Your task to perform on an android device: turn on priority inbox in the gmail app Image 0: 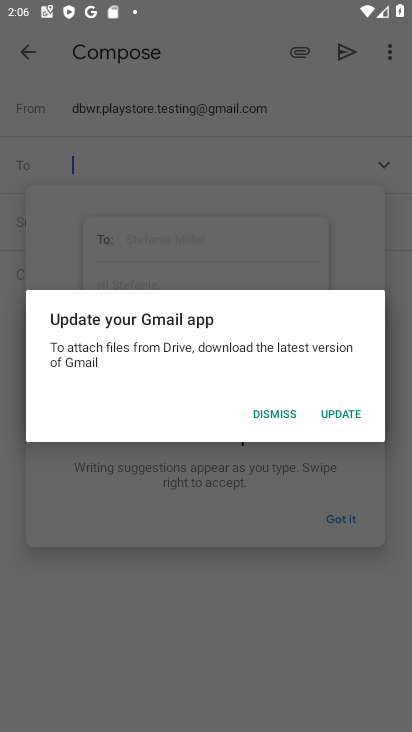
Step 0: press home button
Your task to perform on an android device: turn on priority inbox in the gmail app Image 1: 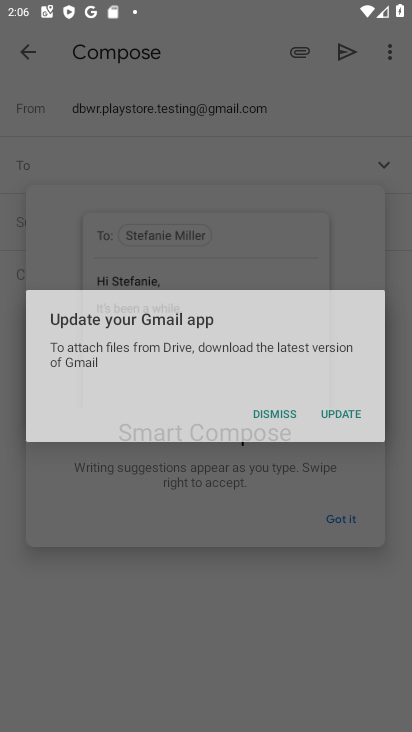
Step 1: press home button
Your task to perform on an android device: turn on priority inbox in the gmail app Image 2: 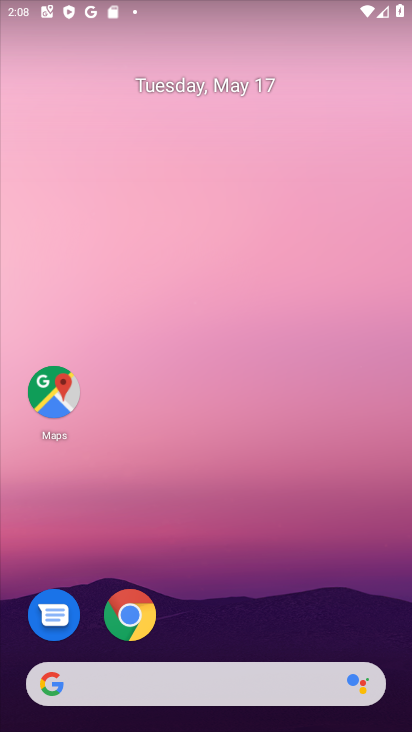
Step 2: drag from (348, 627) to (343, 190)
Your task to perform on an android device: turn on priority inbox in the gmail app Image 3: 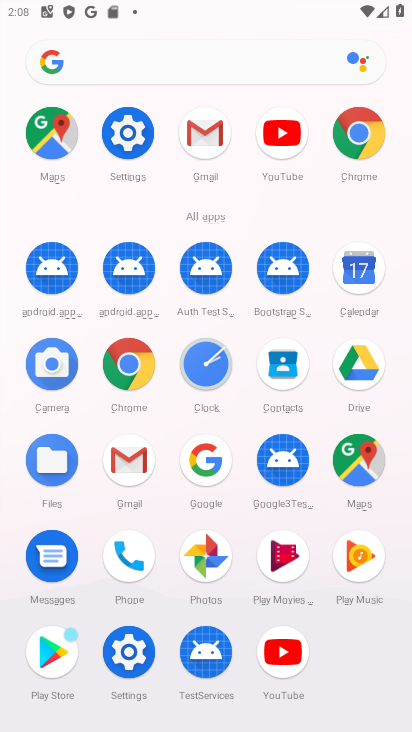
Step 3: click (115, 427)
Your task to perform on an android device: turn on priority inbox in the gmail app Image 4: 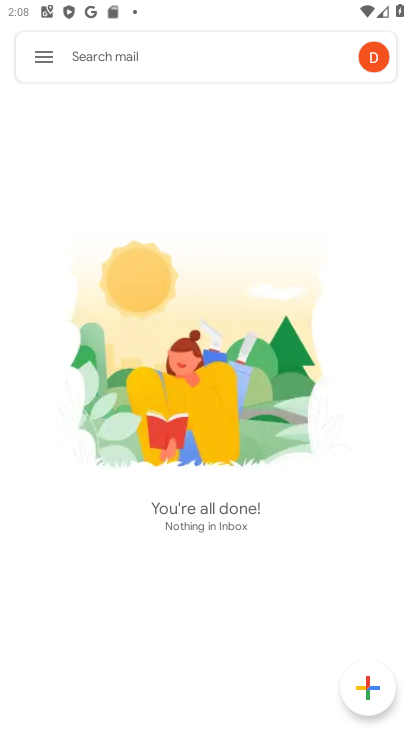
Step 4: click (44, 58)
Your task to perform on an android device: turn on priority inbox in the gmail app Image 5: 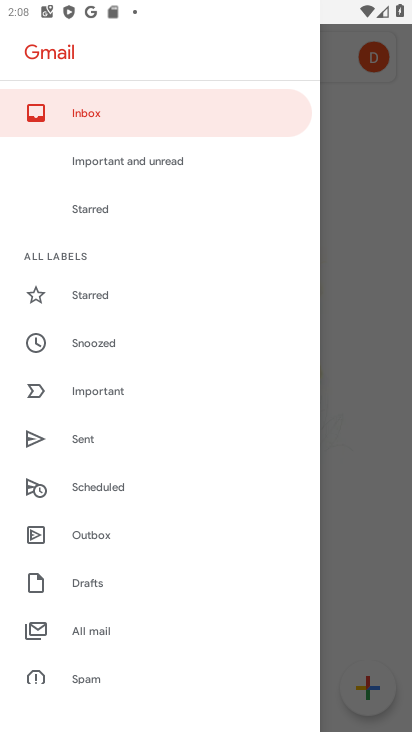
Step 5: drag from (87, 570) to (113, 45)
Your task to perform on an android device: turn on priority inbox in the gmail app Image 6: 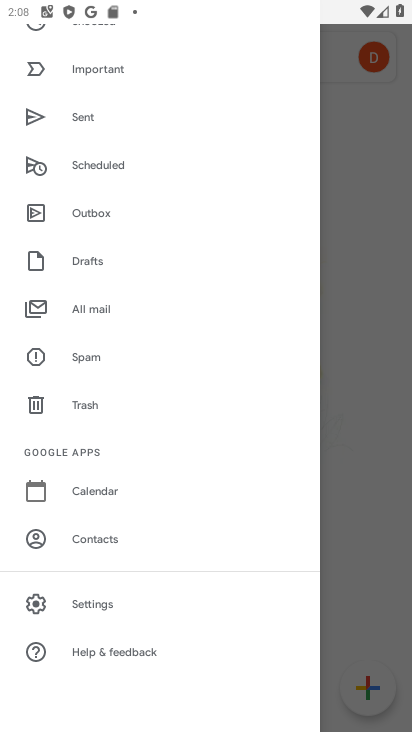
Step 6: click (92, 601)
Your task to perform on an android device: turn on priority inbox in the gmail app Image 7: 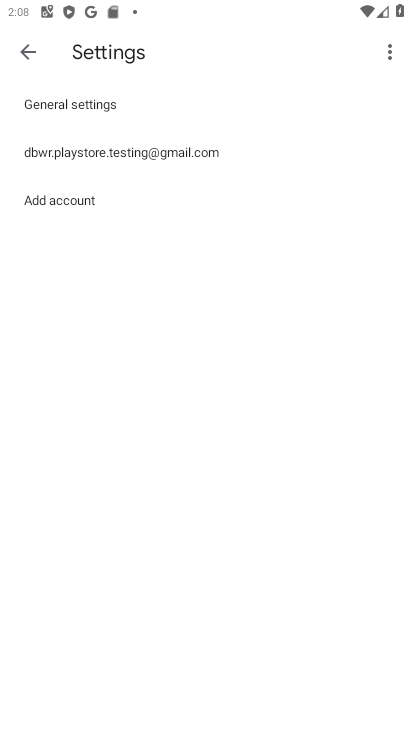
Step 7: click (150, 151)
Your task to perform on an android device: turn on priority inbox in the gmail app Image 8: 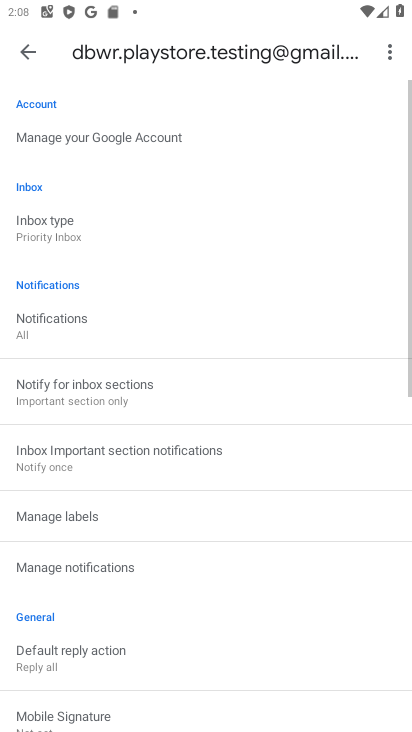
Step 8: click (89, 224)
Your task to perform on an android device: turn on priority inbox in the gmail app Image 9: 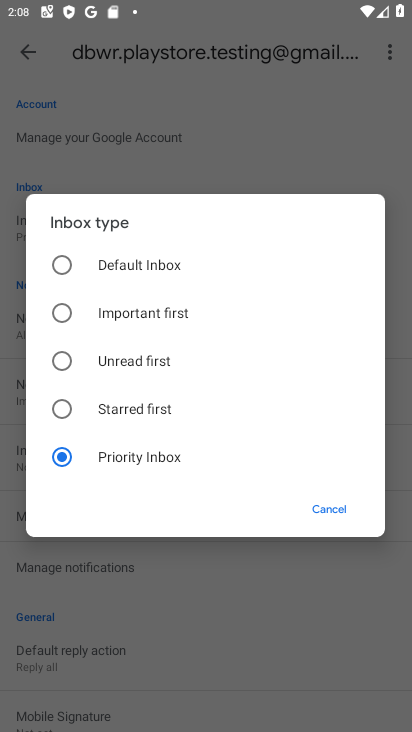
Step 9: click (91, 230)
Your task to perform on an android device: turn on priority inbox in the gmail app Image 10: 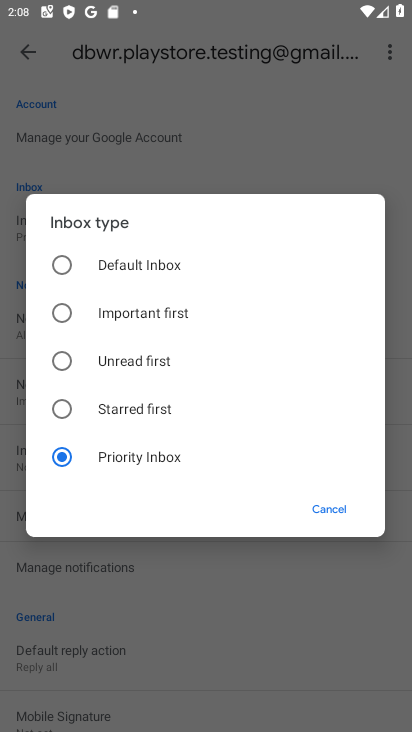
Step 10: click (95, 270)
Your task to perform on an android device: turn on priority inbox in the gmail app Image 11: 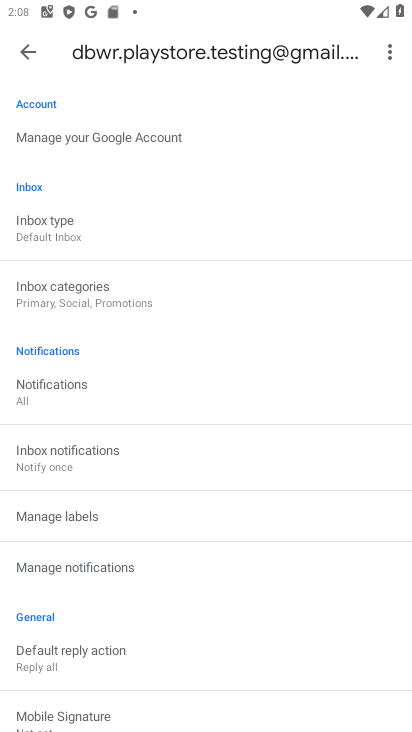
Step 11: click (108, 462)
Your task to perform on an android device: turn on priority inbox in the gmail app Image 12: 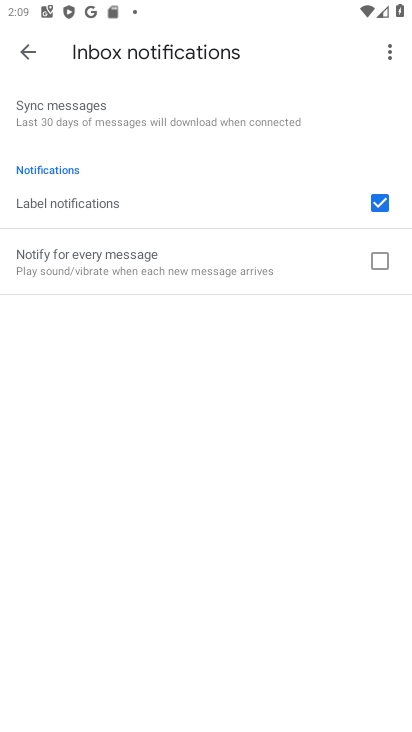
Step 12: click (223, 321)
Your task to perform on an android device: turn on priority inbox in the gmail app Image 13: 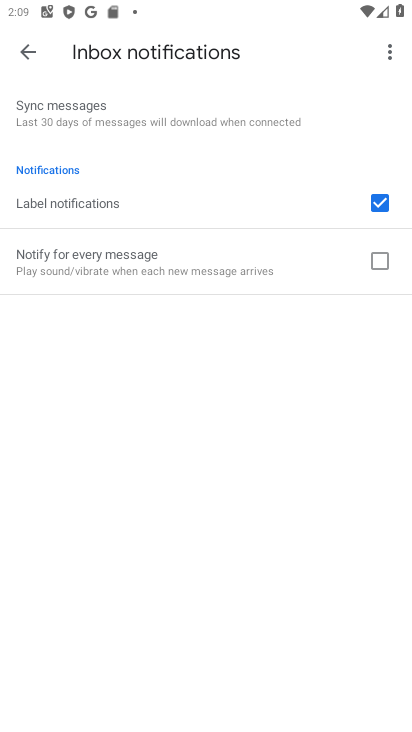
Step 13: click (108, 464)
Your task to perform on an android device: turn on priority inbox in the gmail app Image 14: 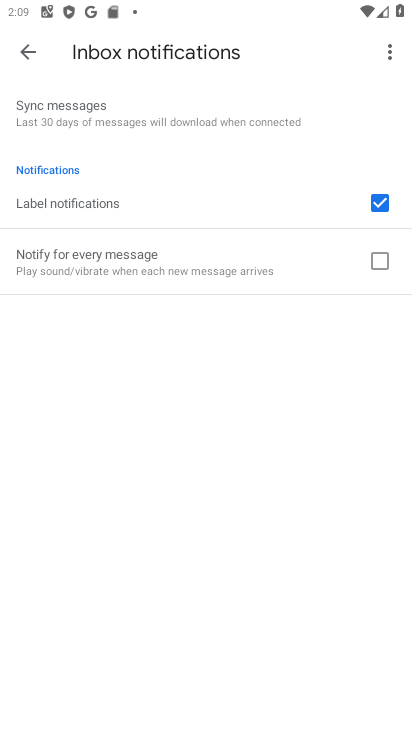
Step 14: click (114, 450)
Your task to perform on an android device: turn on priority inbox in the gmail app Image 15: 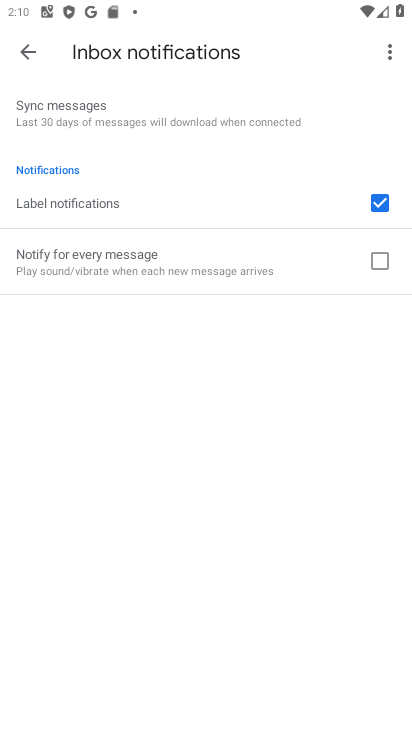
Step 15: click (31, 61)
Your task to perform on an android device: turn on priority inbox in the gmail app Image 16: 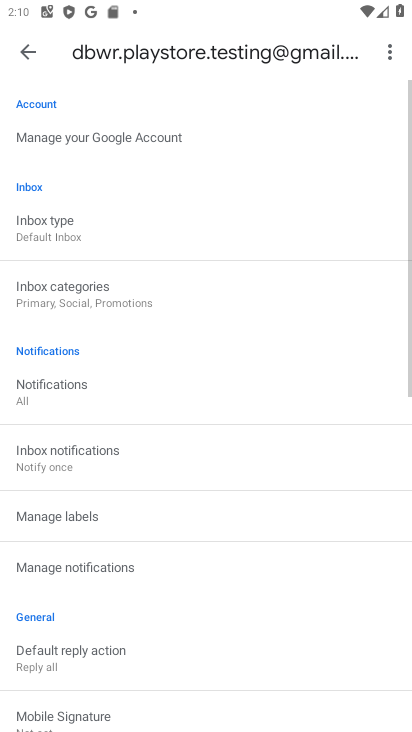
Step 16: click (73, 229)
Your task to perform on an android device: turn on priority inbox in the gmail app Image 17: 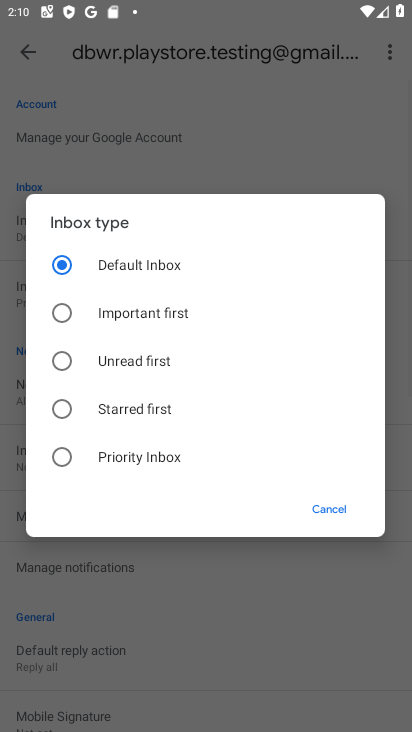
Step 17: click (110, 360)
Your task to perform on an android device: turn on priority inbox in the gmail app Image 18: 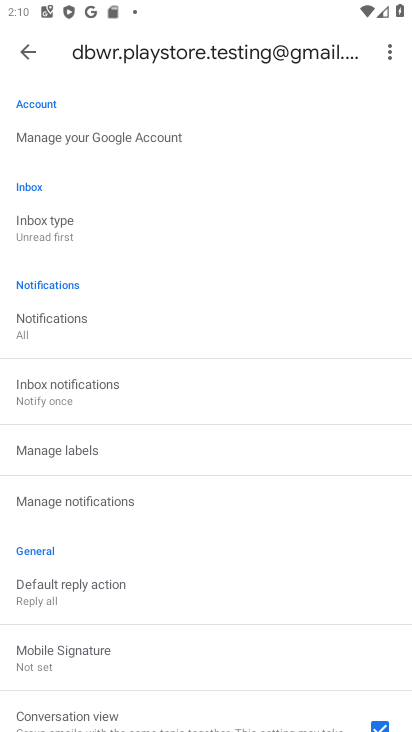
Step 18: click (116, 223)
Your task to perform on an android device: turn on priority inbox in the gmail app Image 19: 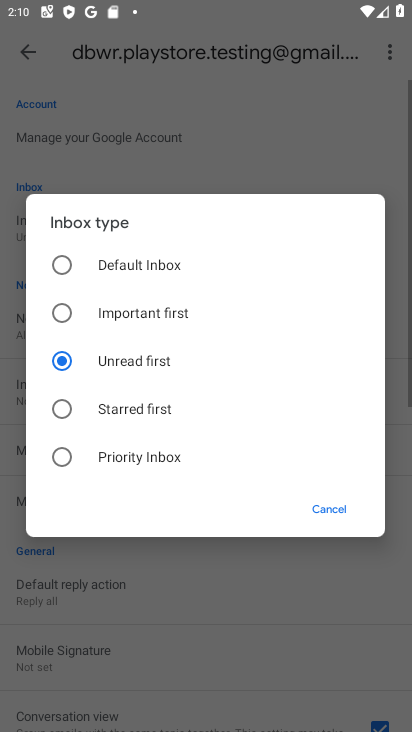
Step 19: click (131, 455)
Your task to perform on an android device: turn on priority inbox in the gmail app Image 20: 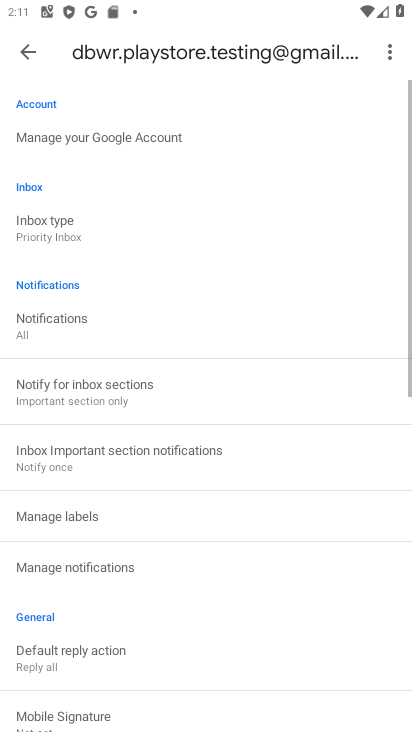
Step 20: task complete